Your task to perform on an android device: Open Chrome and go to settings Image 0: 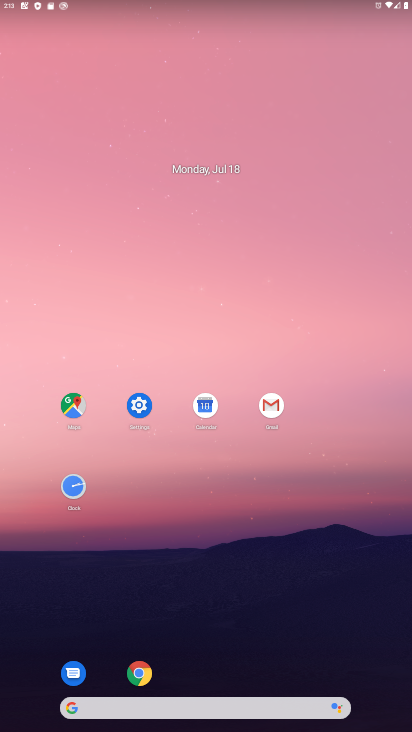
Step 0: click (146, 663)
Your task to perform on an android device: Open Chrome and go to settings Image 1: 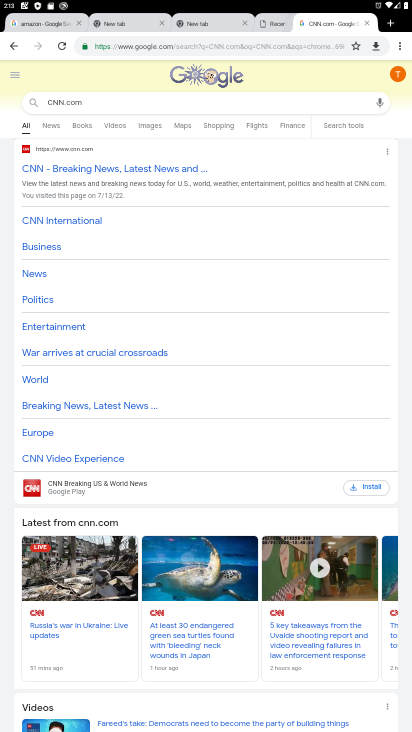
Step 1: click (400, 47)
Your task to perform on an android device: Open Chrome and go to settings Image 2: 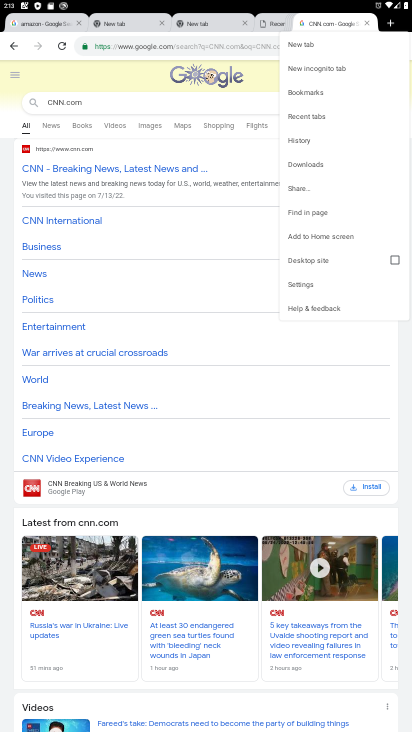
Step 2: click (302, 278)
Your task to perform on an android device: Open Chrome and go to settings Image 3: 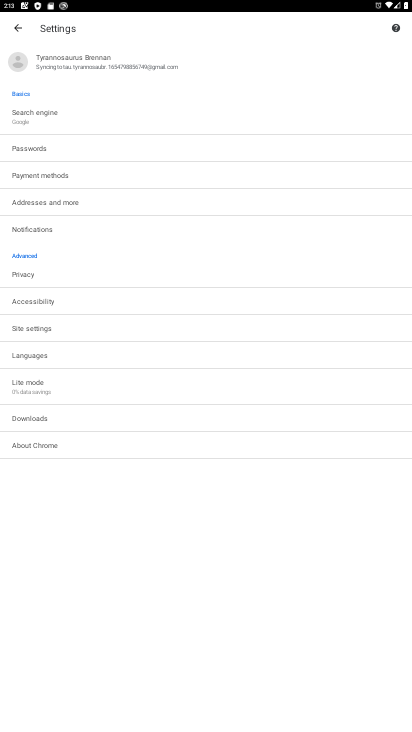
Step 3: task complete